Your task to perform on an android device: Turn on the flashlight Image 0: 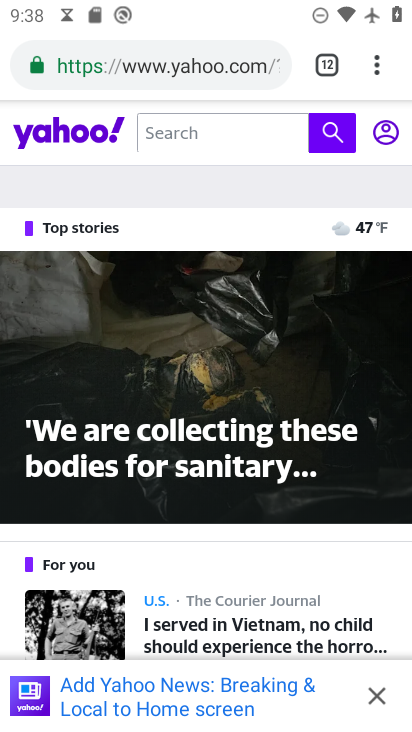
Step 0: press home button
Your task to perform on an android device: Turn on the flashlight Image 1: 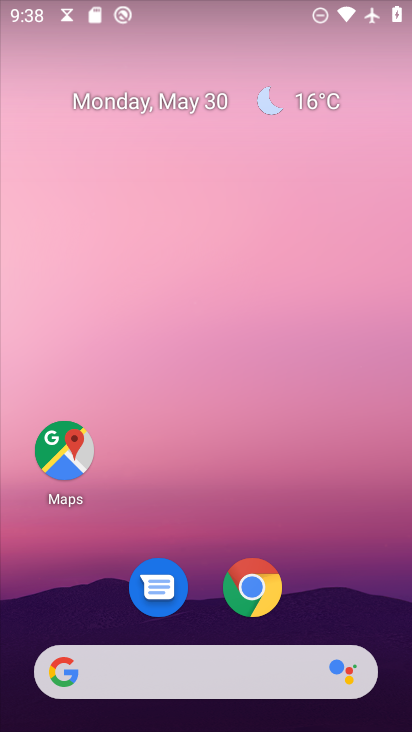
Step 1: task complete